Your task to perform on an android device: See recent photos Image 0: 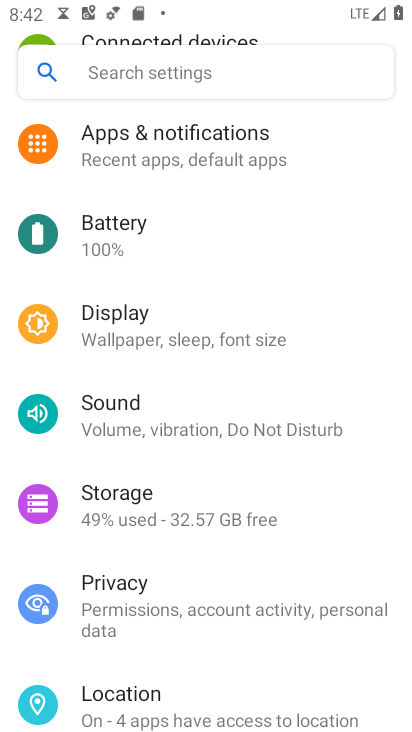
Step 0: press home button
Your task to perform on an android device: See recent photos Image 1: 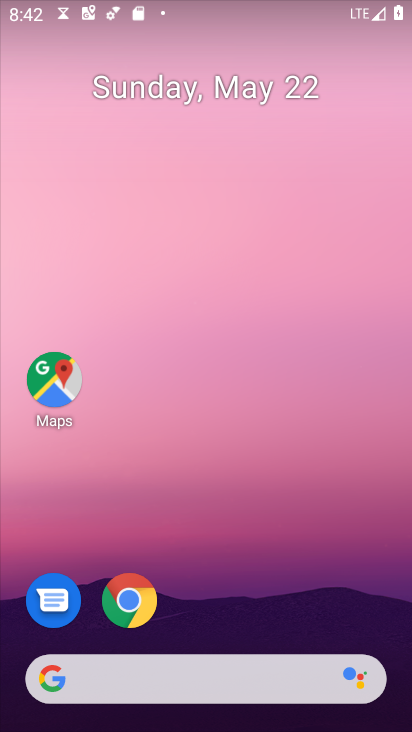
Step 1: drag from (173, 672) to (224, 454)
Your task to perform on an android device: See recent photos Image 2: 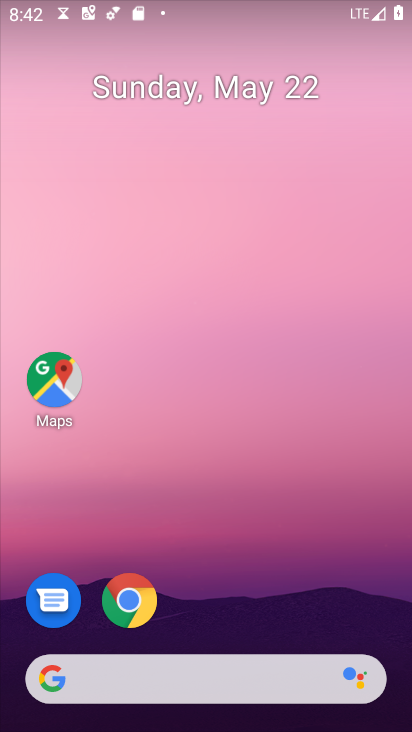
Step 2: drag from (241, 635) to (268, 194)
Your task to perform on an android device: See recent photos Image 3: 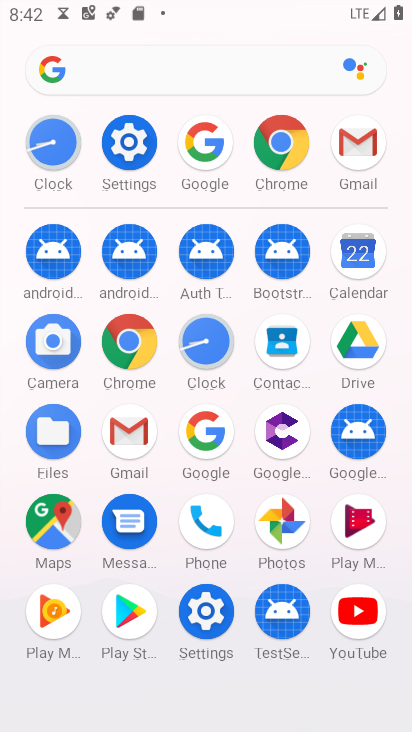
Step 3: click (276, 528)
Your task to perform on an android device: See recent photos Image 4: 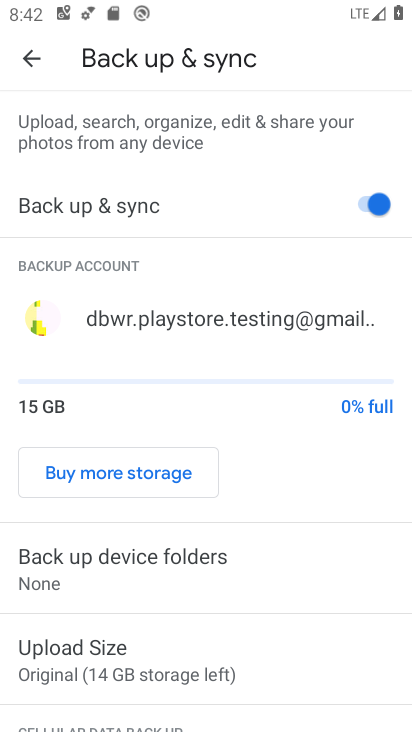
Step 4: click (18, 54)
Your task to perform on an android device: See recent photos Image 5: 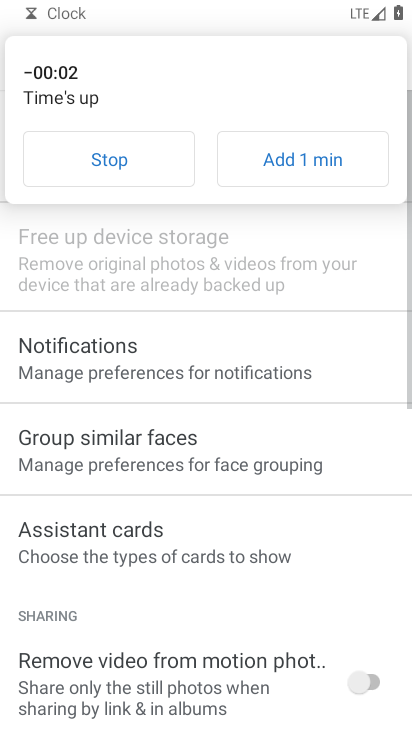
Step 5: click (80, 166)
Your task to perform on an android device: See recent photos Image 6: 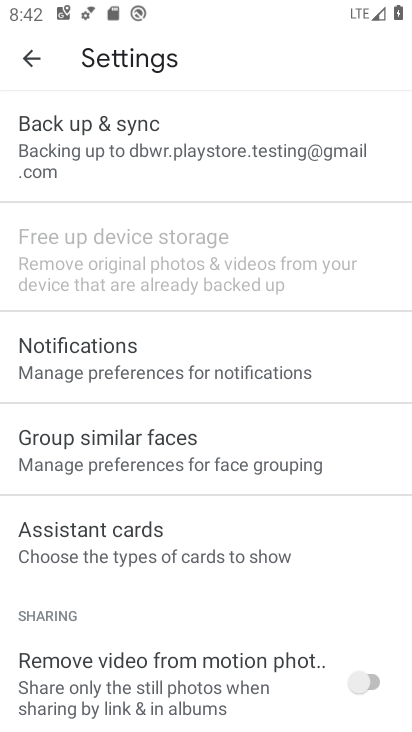
Step 6: click (27, 61)
Your task to perform on an android device: See recent photos Image 7: 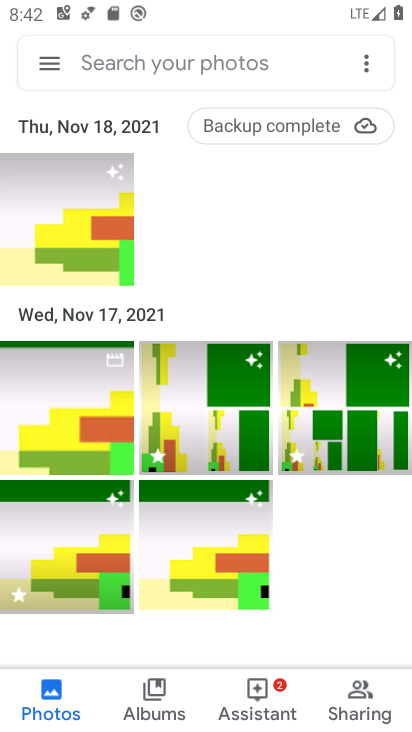
Step 7: click (45, 228)
Your task to perform on an android device: See recent photos Image 8: 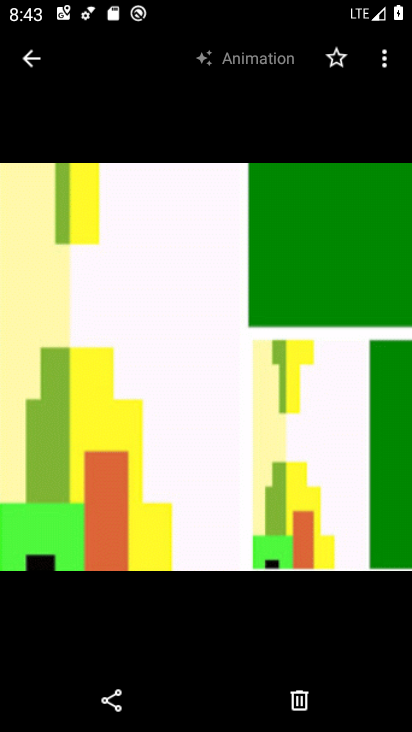
Step 8: task complete